Your task to perform on an android device: View the shopping cart on bestbuy.com. Search for logitech g pro on bestbuy.com, select the first entry, and add it to the cart. Image 0: 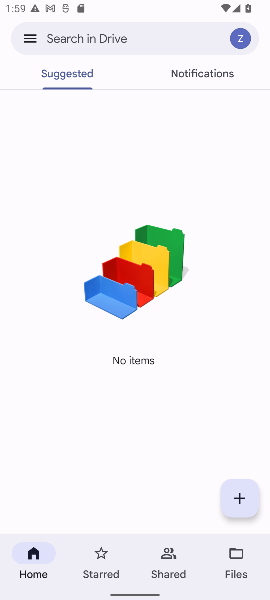
Step 0: press home button
Your task to perform on an android device: View the shopping cart on bestbuy.com. Search for logitech g pro on bestbuy.com, select the first entry, and add it to the cart. Image 1: 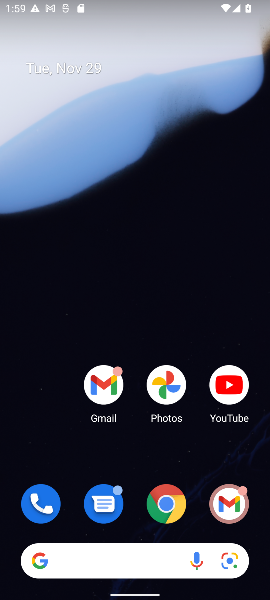
Step 1: click (167, 505)
Your task to perform on an android device: View the shopping cart on bestbuy.com. Search for logitech g pro on bestbuy.com, select the first entry, and add it to the cart. Image 2: 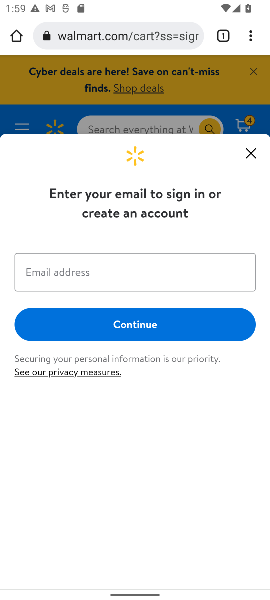
Step 2: click (108, 31)
Your task to perform on an android device: View the shopping cart on bestbuy.com. Search for logitech g pro on bestbuy.com, select the first entry, and add it to the cart. Image 3: 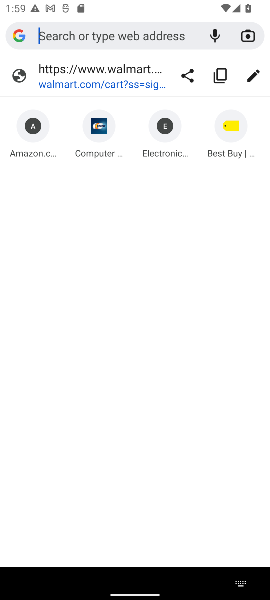
Step 3: click (232, 155)
Your task to perform on an android device: View the shopping cart on bestbuy.com. Search for logitech g pro on bestbuy.com, select the first entry, and add it to the cart. Image 4: 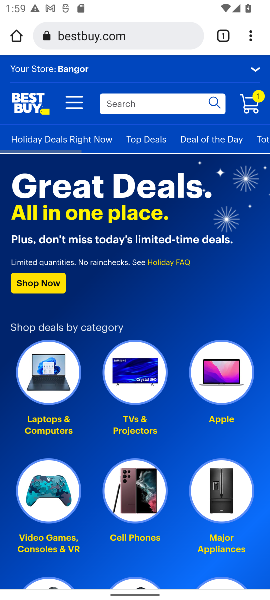
Step 4: click (256, 108)
Your task to perform on an android device: View the shopping cart on bestbuy.com. Search for logitech g pro on bestbuy.com, select the first entry, and add it to the cart. Image 5: 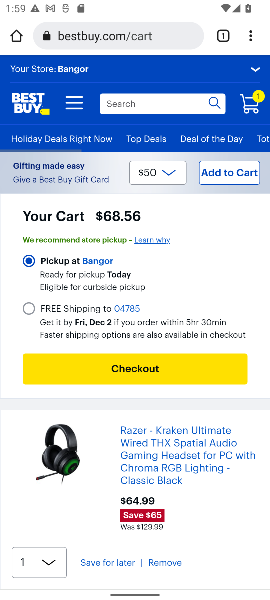
Step 5: drag from (96, 450) to (97, 314)
Your task to perform on an android device: View the shopping cart on bestbuy.com. Search for logitech g pro on bestbuy.com, select the first entry, and add it to the cart. Image 6: 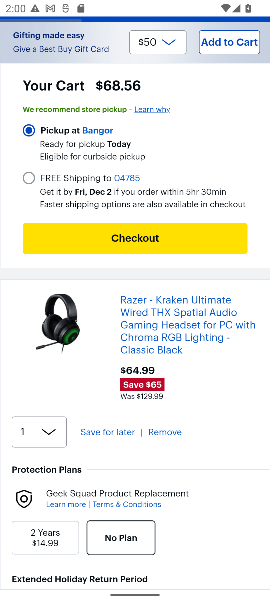
Step 6: drag from (207, 160) to (187, 347)
Your task to perform on an android device: View the shopping cart on bestbuy.com. Search for logitech g pro on bestbuy.com, select the first entry, and add it to the cart. Image 7: 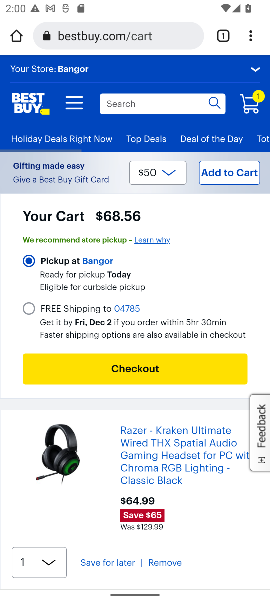
Step 7: click (122, 101)
Your task to perform on an android device: View the shopping cart on bestbuy.com. Search for logitech g pro on bestbuy.com, select the first entry, and add it to the cart. Image 8: 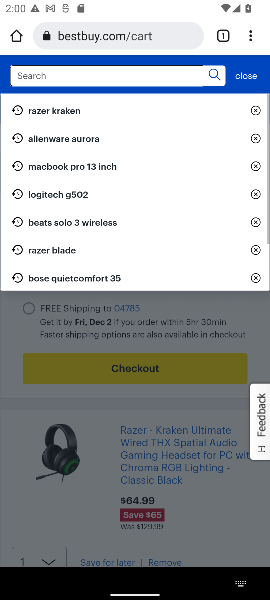
Step 8: type " logitech g pro"
Your task to perform on an android device: View the shopping cart on bestbuy.com. Search for logitech g pro on bestbuy.com, select the first entry, and add it to the cart. Image 9: 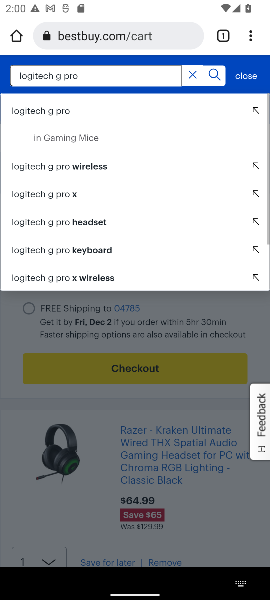
Step 9: click (43, 113)
Your task to perform on an android device: View the shopping cart on bestbuy.com. Search for logitech g pro on bestbuy.com, select the first entry, and add it to the cart. Image 10: 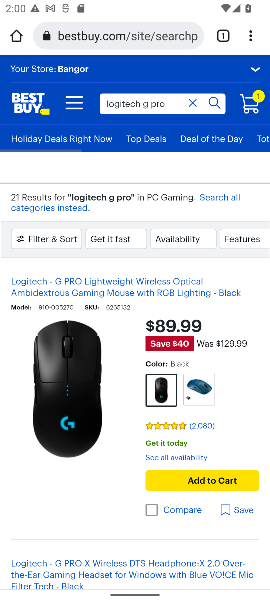
Step 10: click (185, 450)
Your task to perform on an android device: View the shopping cart on bestbuy.com. Search for logitech g pro on bestbuy.com, select the first entry, and add it to the cart. Image 11: 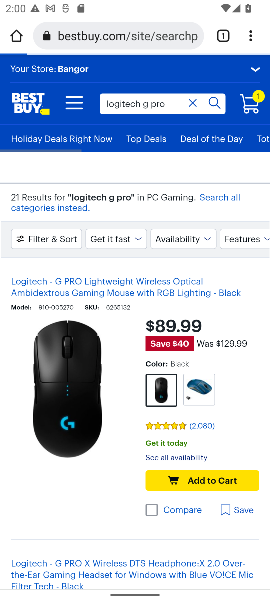
Step 11: click (182, 479)
Your task to perform on an android device: View the shopping cart on bestbuy.com. Search for logitech g pro on bestbuy.com, select the first entry, and add it to the cart. Image 12: 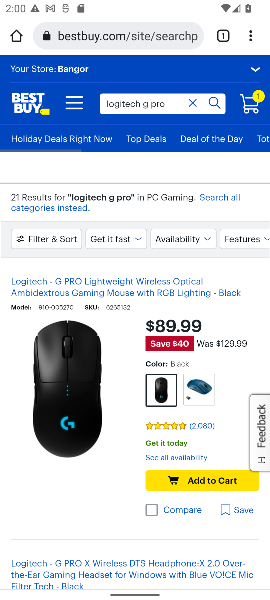
Step 12: click (194, 478)
Your task to perform on an android device: View the shopping cart on bestbuy.com. Search for logitech g pro on bestbuy.com, select the first entry, and add it to the cart. Image 13: 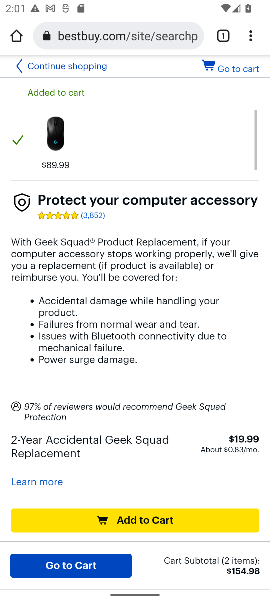
Step 13: task complete